Your task to perform on an android device: Open accessibility settings Image 0: 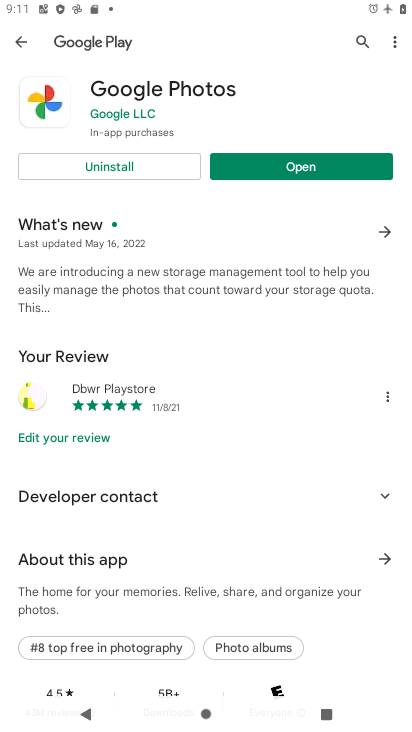
Step 0: press home button
Your task to perform on an android device: Open accessibility settings Image 1: 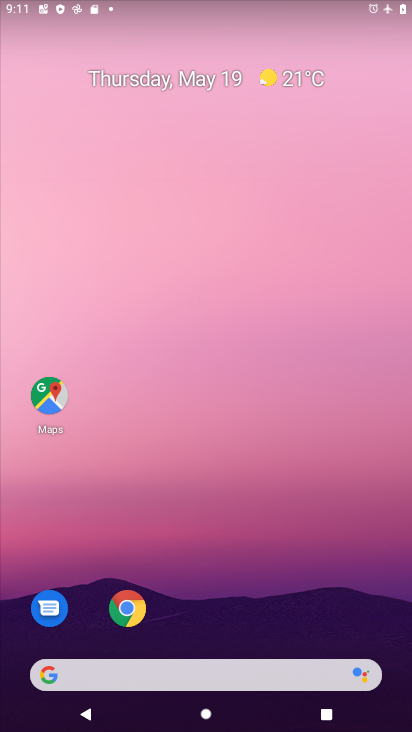
Step 1: drag from (219, 549) to (159, 4)
Your task to perform on an android device: Open accessibility settings Image 2: 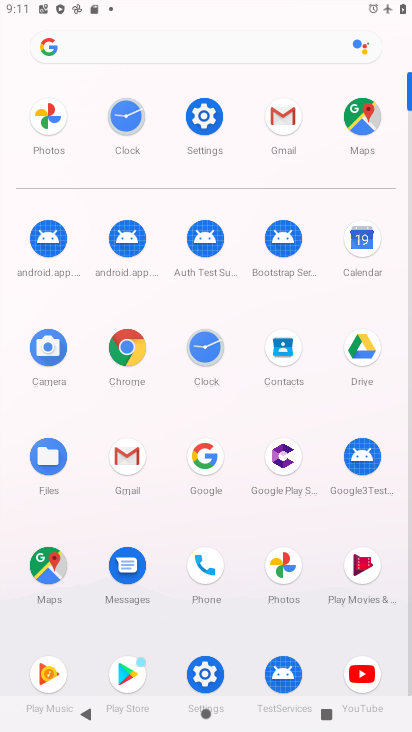
Step 2: click (202, 111)
Your task to perform on an android device: Open accessibility settings Image 3: 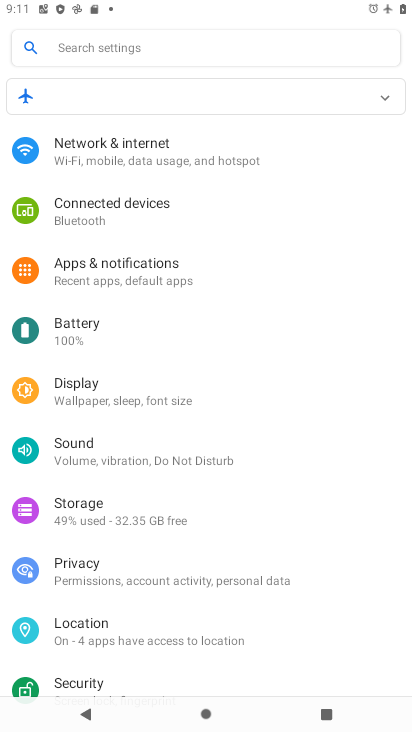
Step 3: drag from (220, 536) to (199, 201)
Your task to perform on an android device: Open accessibility settings Image 4: 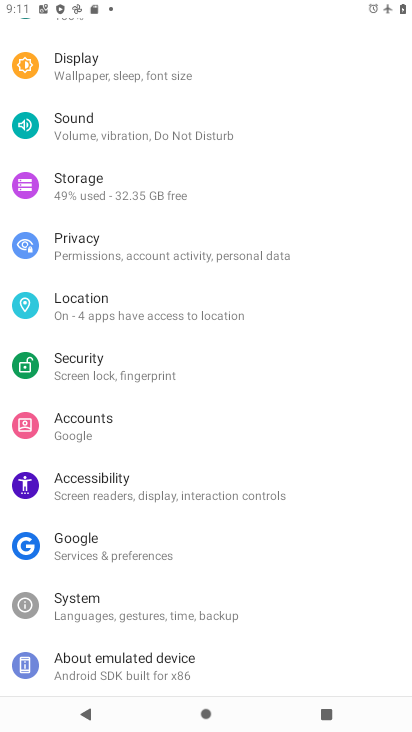
Step 4: click (95, 479)
Your task to perform on an android device: Open accessibility settings Image 5: 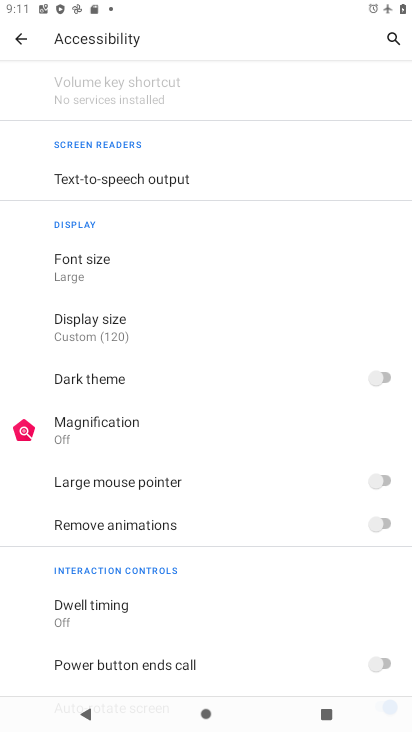
Step 5: task complete